Your task to perform on an android device: Go to Maps Image 0: 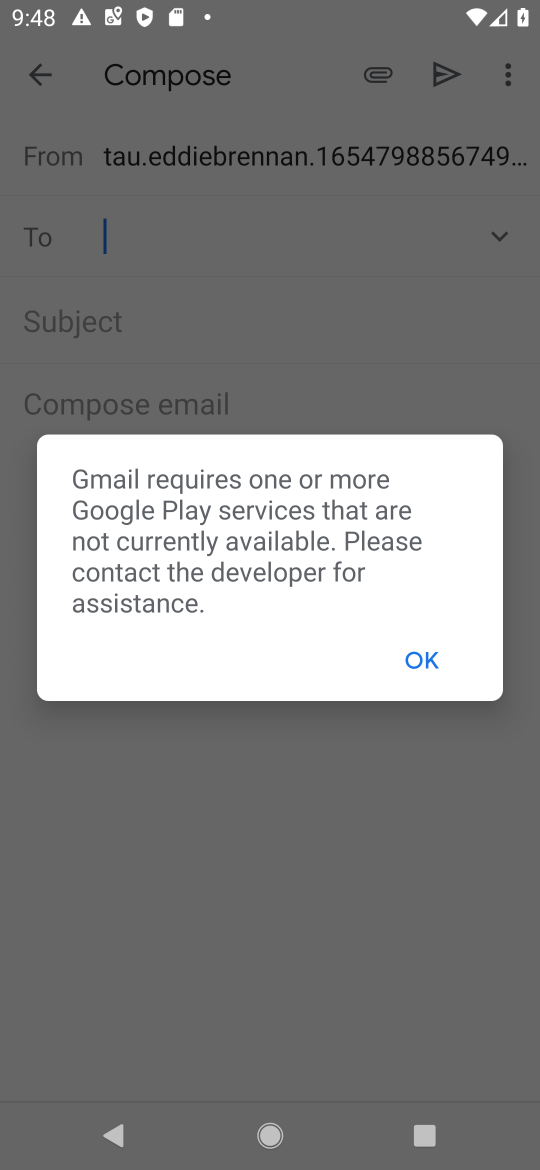
Step 0: press home button
Your task to perform on an android device: Go to Maps Image 1: 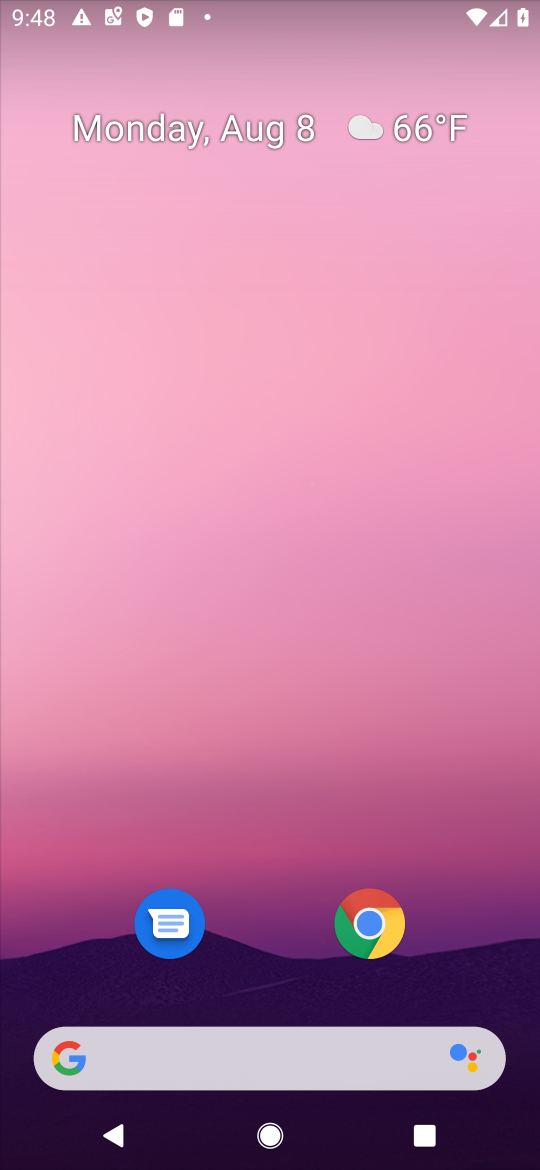
Step 1: drag from (41, 1125) to (271, 371)
Your task to perform on an android device: Go to Maps Image 2: 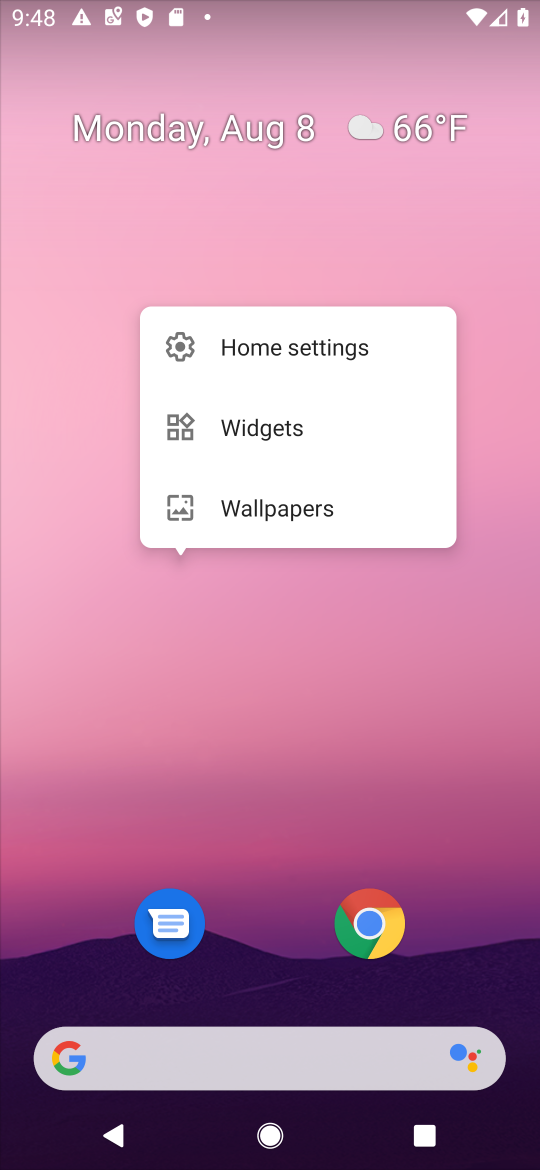
Step 2: drag from (40, 1117) to (164, 515)
Your task to perform on an android device: Go to Maps Image 3: 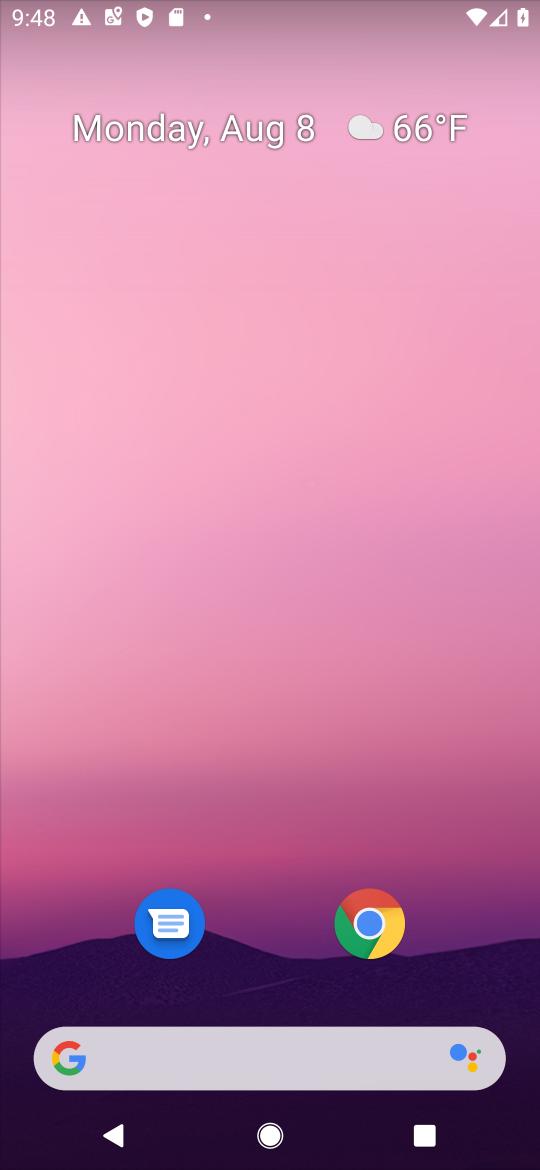
Step 3: drag from (28, 1146) to (209, 416)
Your task to perform on an android device: Go to Maps Image 4: 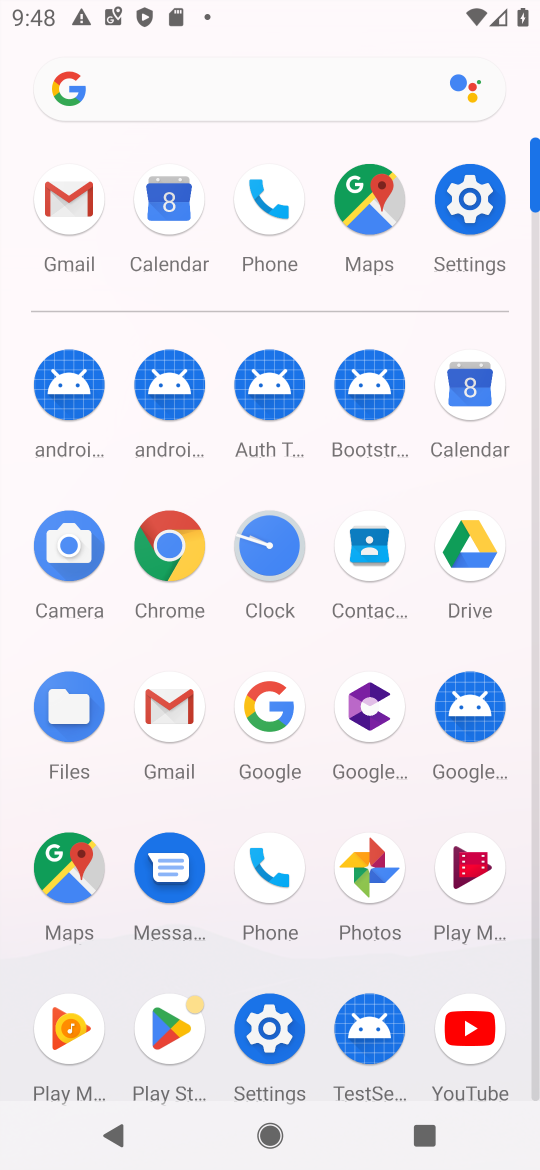
Step 4: click (58, 858)
Your task to perform on an android device: Go to Maps Image 5: 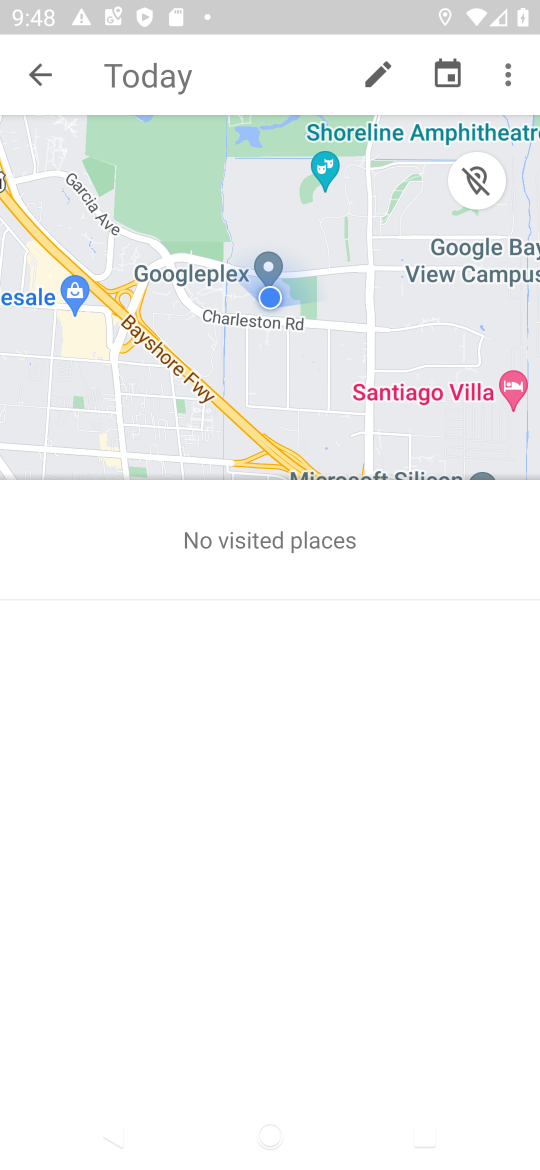
Step 5: click (29, 58)
Your task to perform on an android device: Go to Maps Image 6: 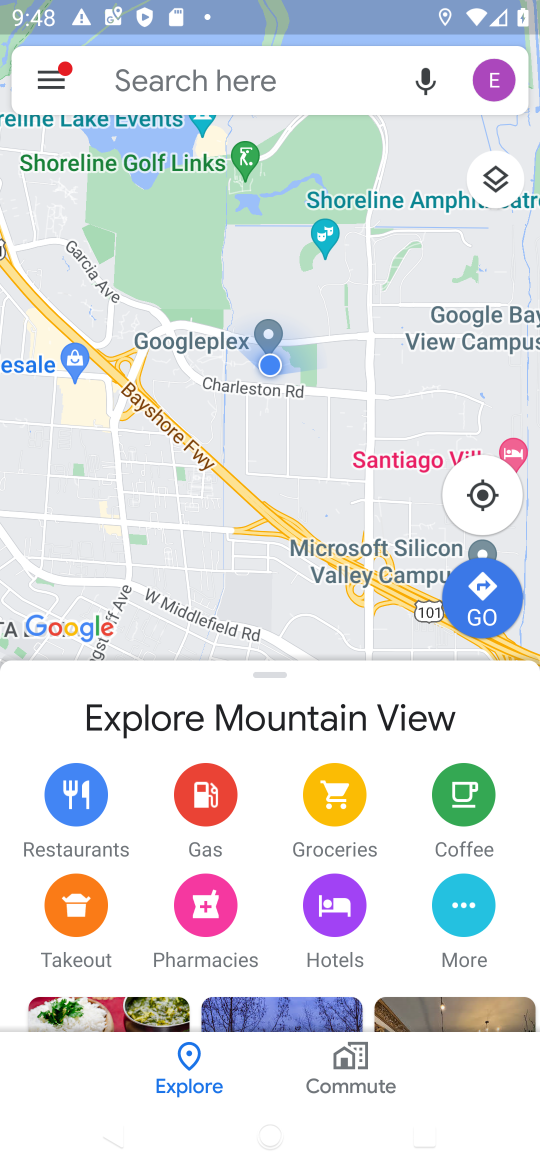
Step 6: task complete